Your task to perform on an android device: Do I have any events this weekend? Image 0: 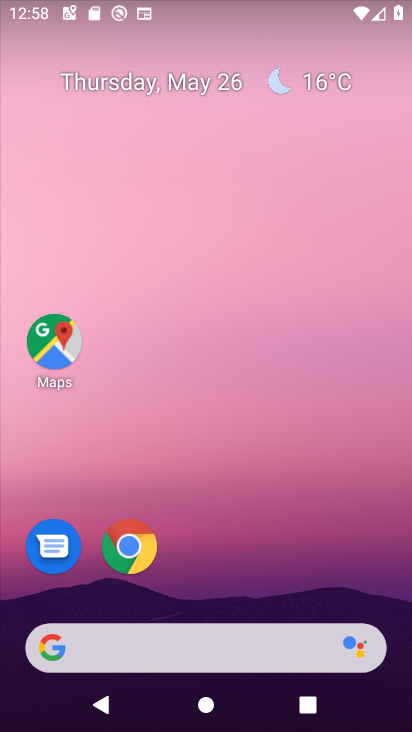
Step 0: drag from (153, 572) to (167, 302)
Your task to perform on an android device: Do I have any events this weekend? Image 1: 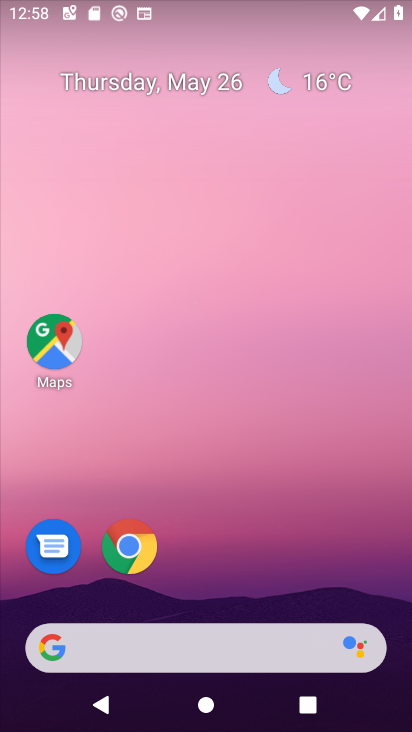
Step 1: drag from (173, 558) to (251, 125)
Your task to perform on an android device: Do I have any events this weekend? Image 2: 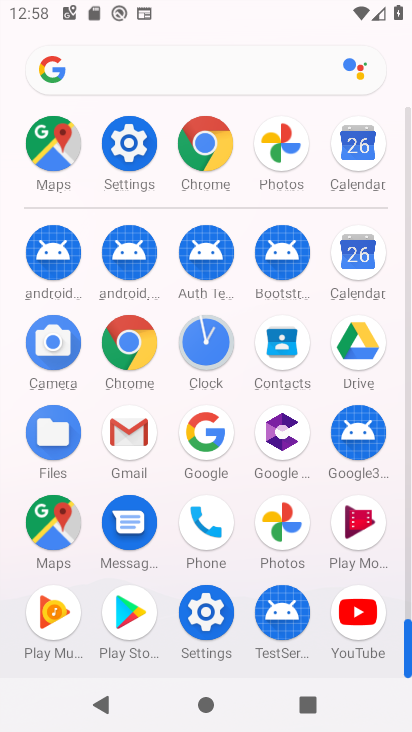
Step 2: click (352, 253)
Your task to perform on an android device: Do I have any events this weekend? Image 3: 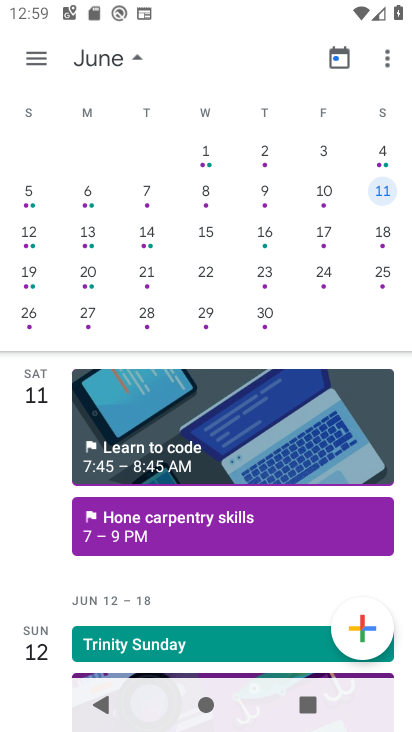
Step 3: click (371, 275)
Your task to perform on an android device: Do I have any events this weekend? Image 4: 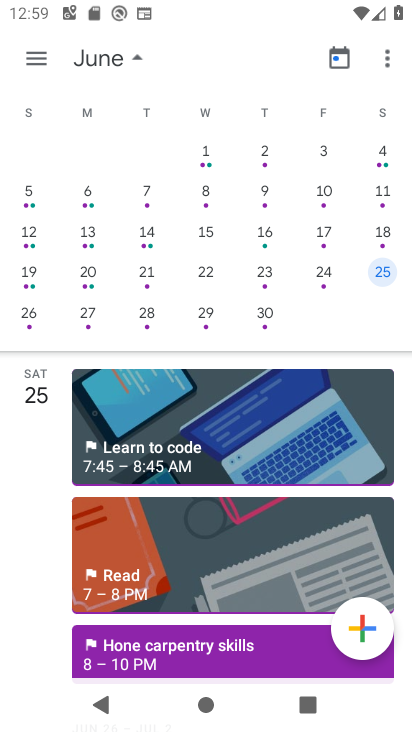
Step 4: click (25, 309)
Your task to perform on an android device: Do I have any events this weekend? Image 5: 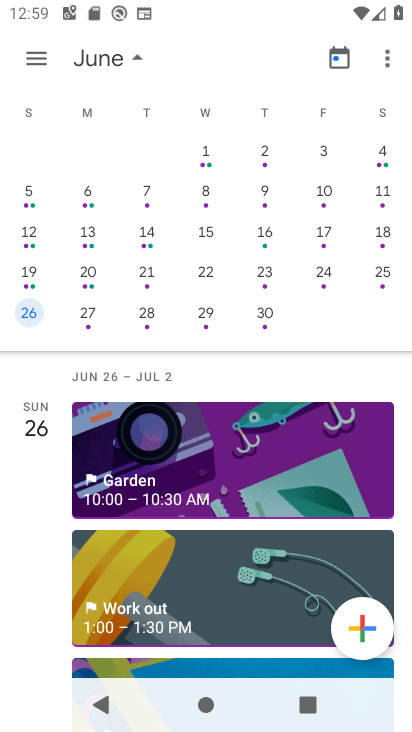
Step 5: task complete